Your task to perform on an android device: Toggle the flashlight Image 0: 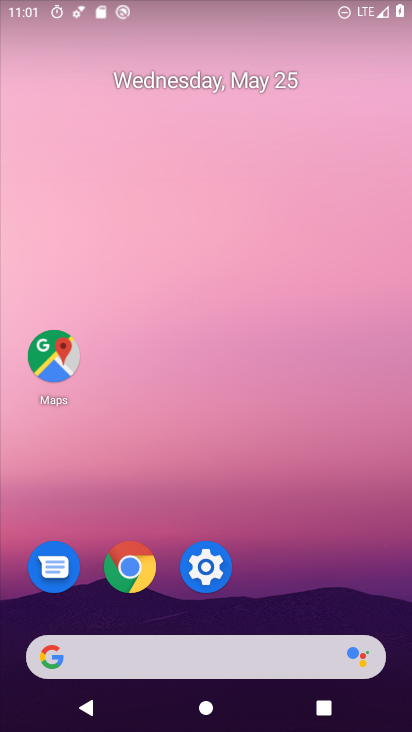
Step 0: drag from (199, 460) to (113, 98)
Your task to perform on an android device: Toggle the flashlight Image 1: 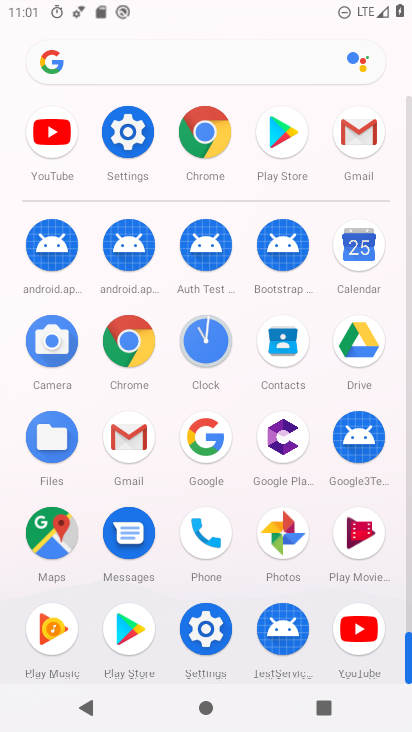
Step 1: task complete